Your task to perform on an android device: all mails in gmail Image 0: 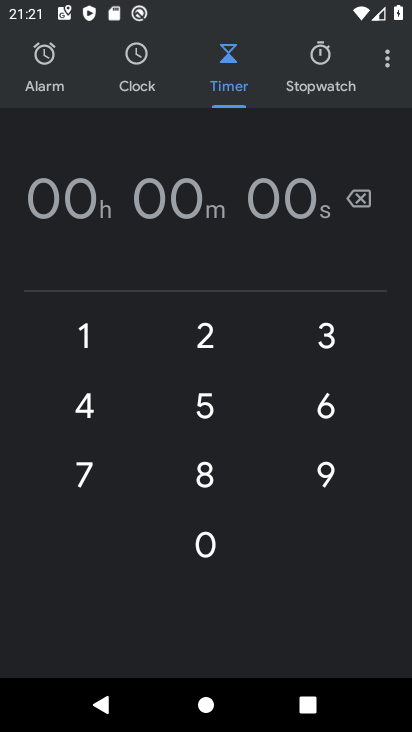
Step 0: press home button
Your task to perform on an android device: all mails in gmail Image 1: 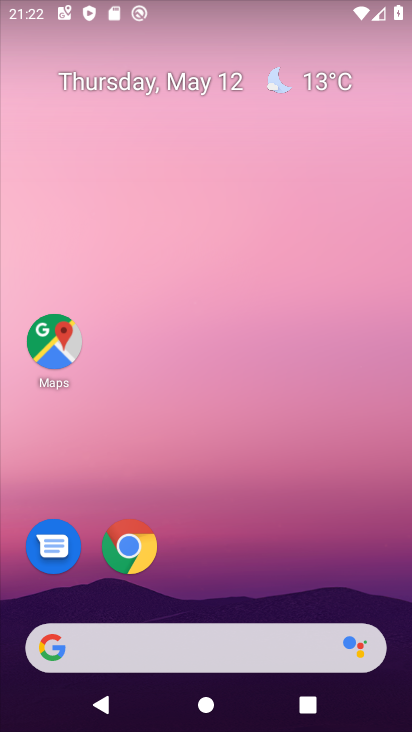
Step 1: drag from (225, 530) to (221, 64)
Your task to perform on an android device: all mails in gmail Image 2: 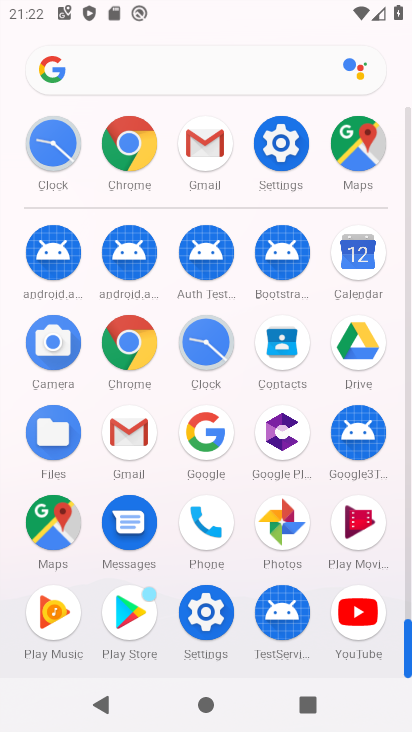
Step 2: click (117, 430)
Your task to perform on an android device: all mails in gmail Image 3: 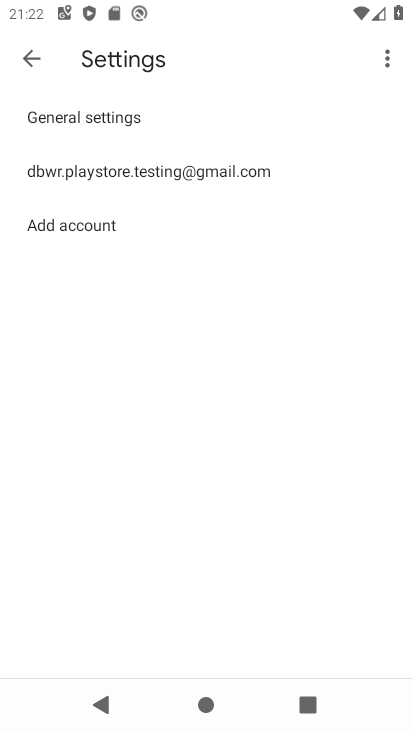
Step 3: click (29, 56)
Your task to perform on an android device: all mails in gmail Image 4: 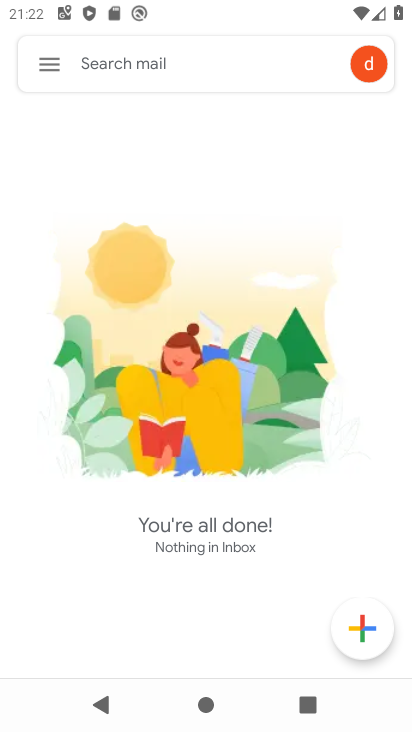
Step 4: click (49, 56)
Your task to perform on an android device: all mails in gmail Image 5: 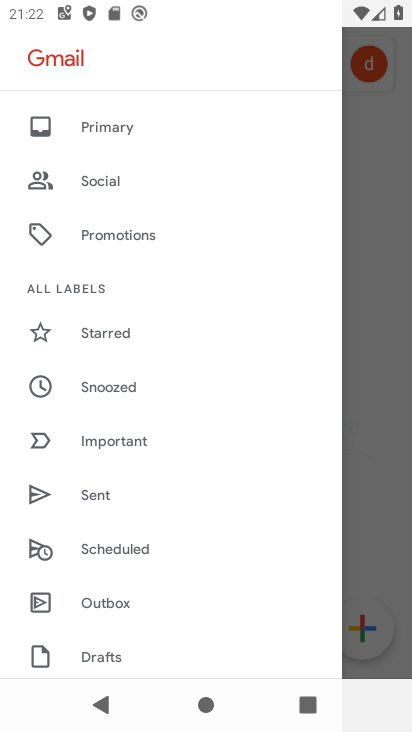
Step 5: drag from (166, 536) to (170, 218)
Your task to perform on an android device: all mails in gmail Image 6: 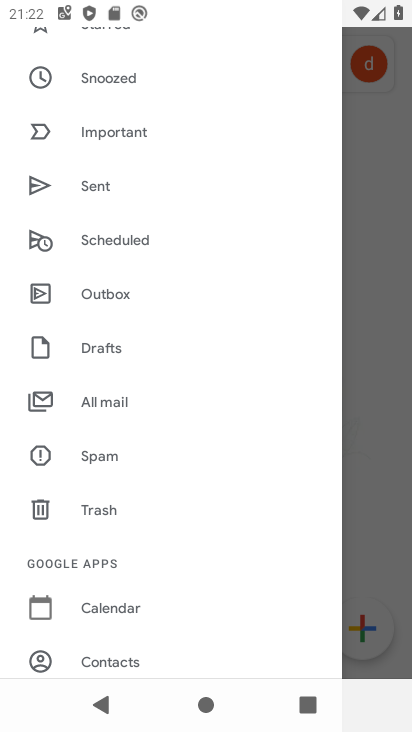
Step 6: click (97, 400)
Your task to perform on an android device: all mails in gmail Image 7: 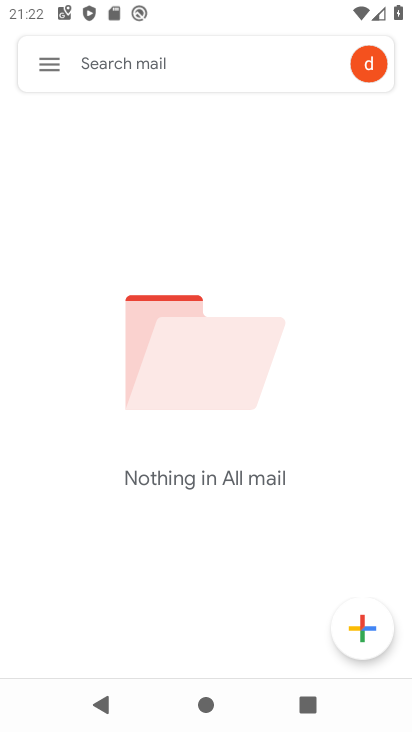
Step 7: task complete